Your task to perform on an android device: Is it going to rain this weekend? Image 0: 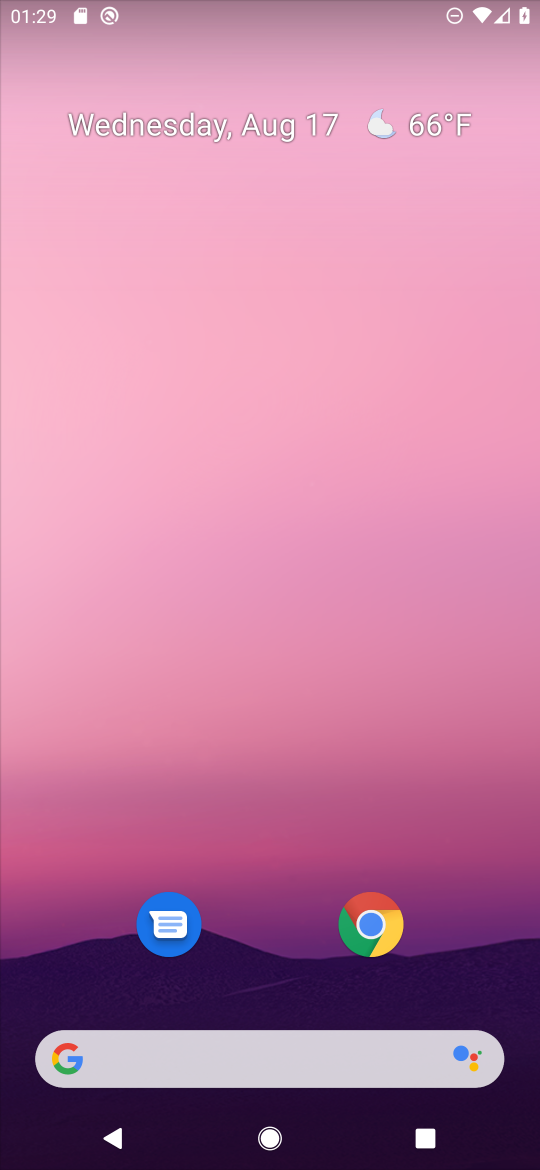
Step 0: click (273, 137)
Your task to perform on an android device: Is it going to rain this weekend? Image 1: 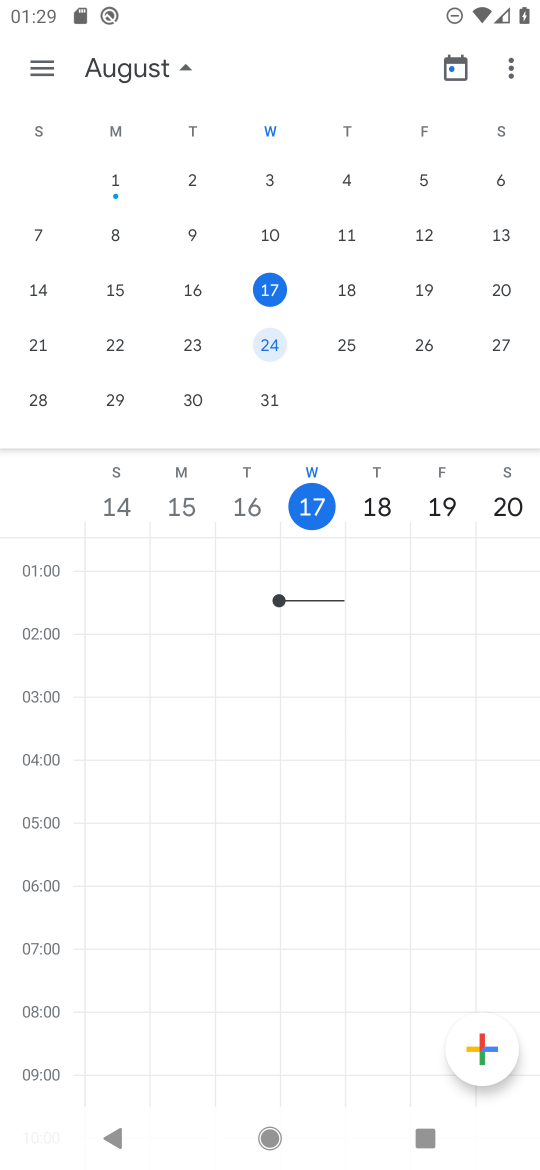
Step 1: press home button
Your task to perform on an android device: Is it going to rain this weekend? Image 2: 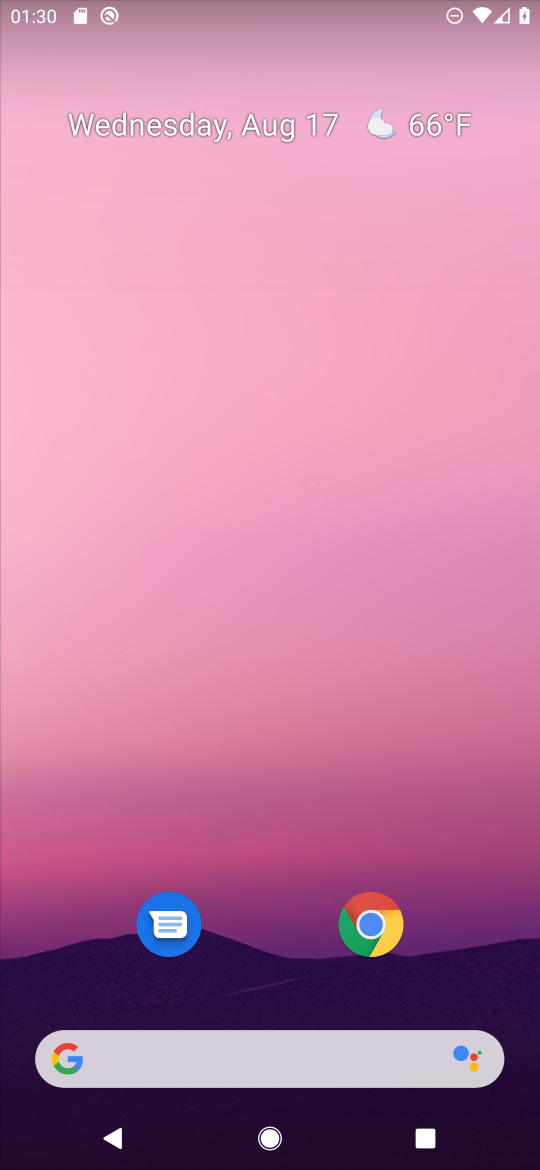
Step 2: click (445, 116)
Your task to perform on an android device: Is it going to rain this weekend? Image 3: 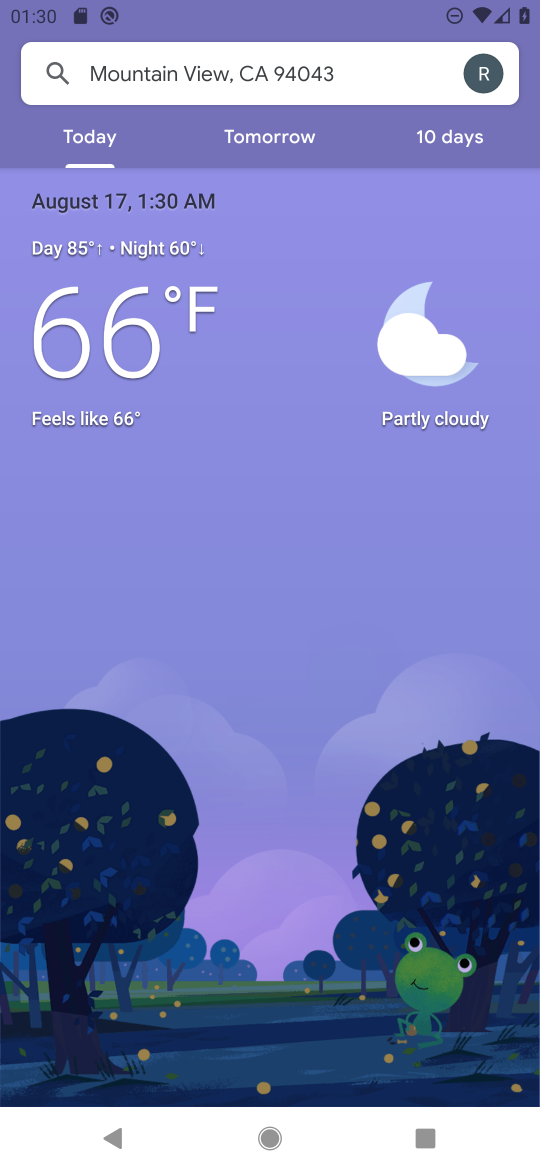
Step 3: click (457, 140)
Your task to perform on an android device: Is it going to rain this weekend? Image 4: 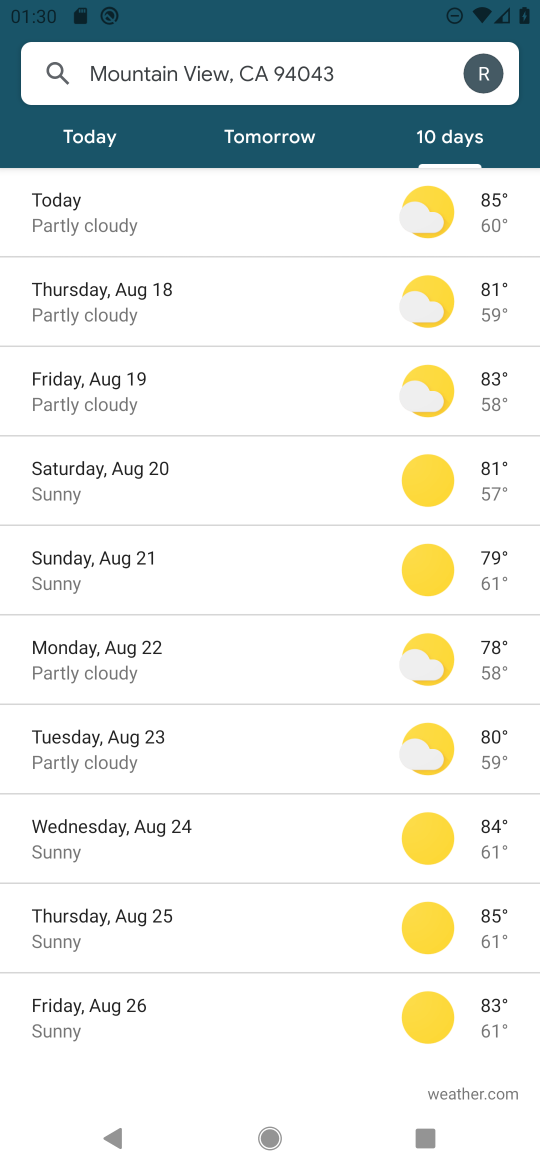
Step 4: task complete